Your task to perform on an android device: Open calendar and show me the second week of next month Image 0: 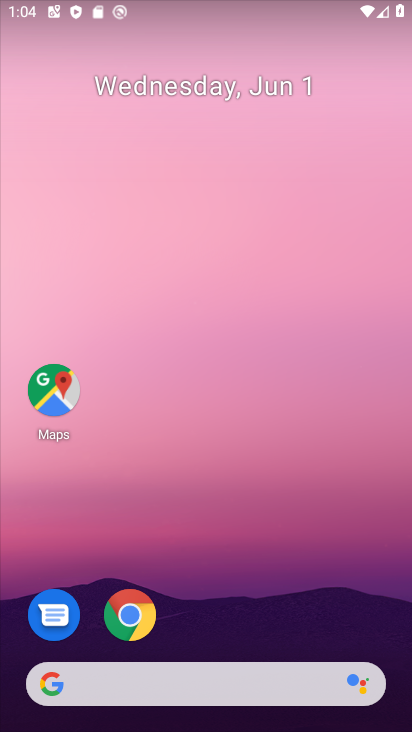
Step 0: task complete